Your task to perform on an android device: clear all cookies in the chrome app Image 0: 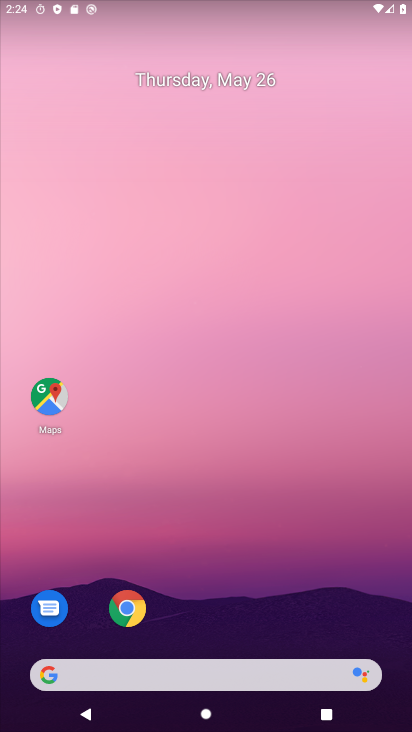
Step 0: drag from (272, 591) to (253, 236)
Your task to perform on an android device: clear all cookies in the chrome app Image 1: 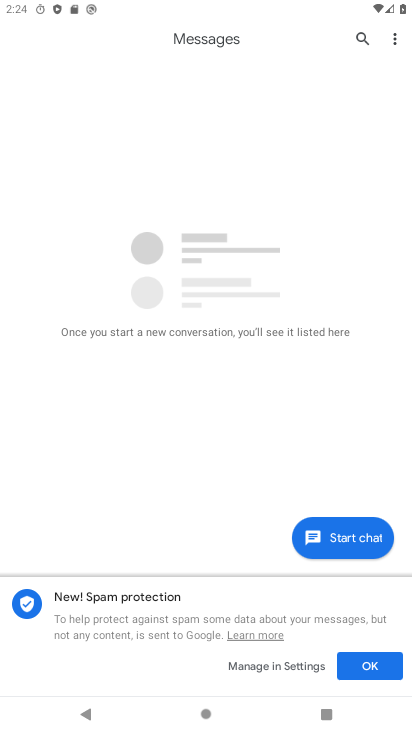
Step 1: press back button
Your task to perform on an android device: clear all cookies in the chrome app Image 2: 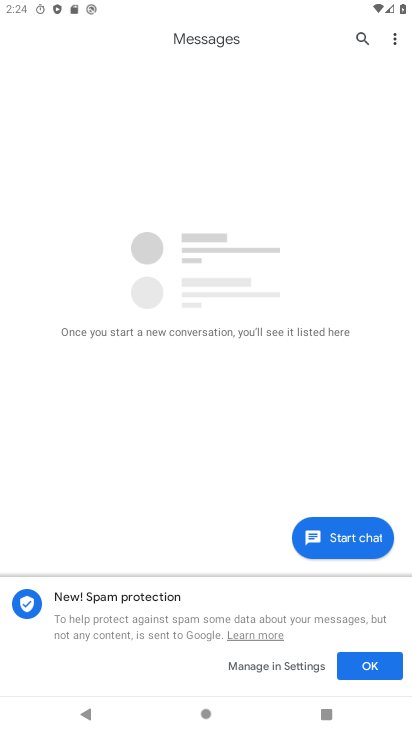
Step 2: press back button
Your task to perform on an android device: clear all cookies in the chrome app Image 3: 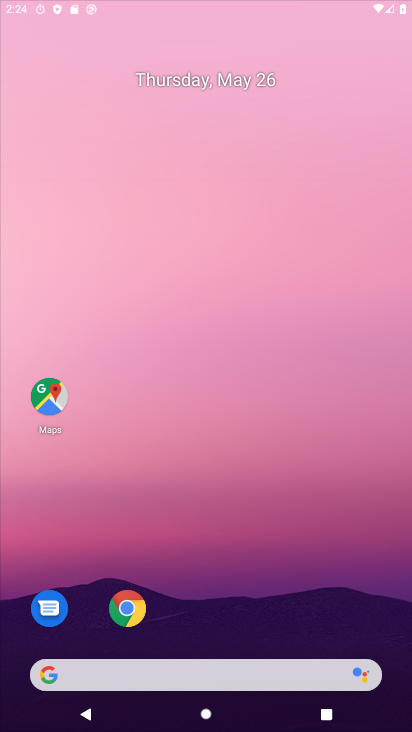
Step 3: press back button
Your task to perform on an android device: clear all cookies in the chrome app Image 4: 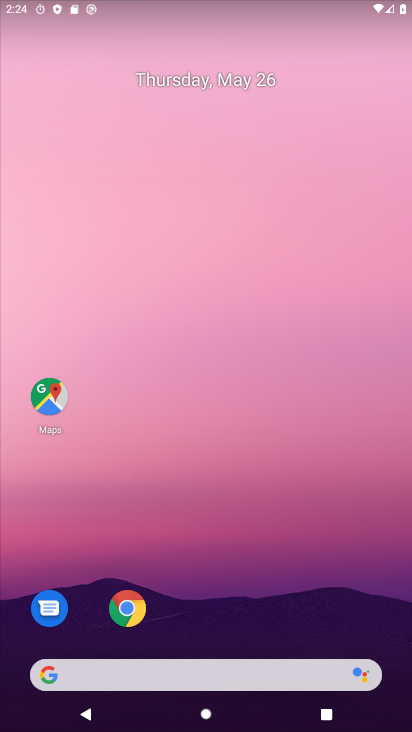
Step 4: drag from (248, 578) to (230, 51)
Your task to perform on an android device: clear all cookies in the chrome app Image 5: 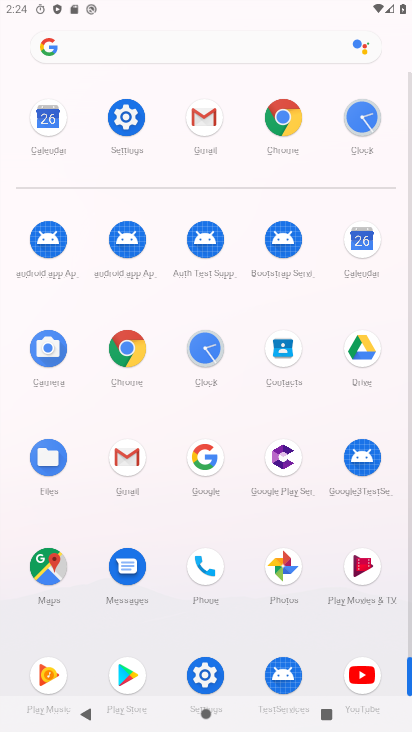
Step 5: click (287, 124)
Your task to perform on an android device: clear all cookies in the chrome app Image 6: 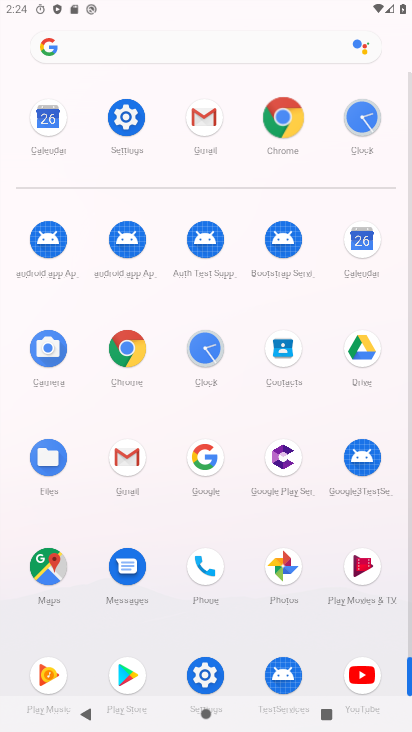
Step 6: click (287, 124)
Your task to perform on an android device: clear all cookies in the chrome app Image 7: 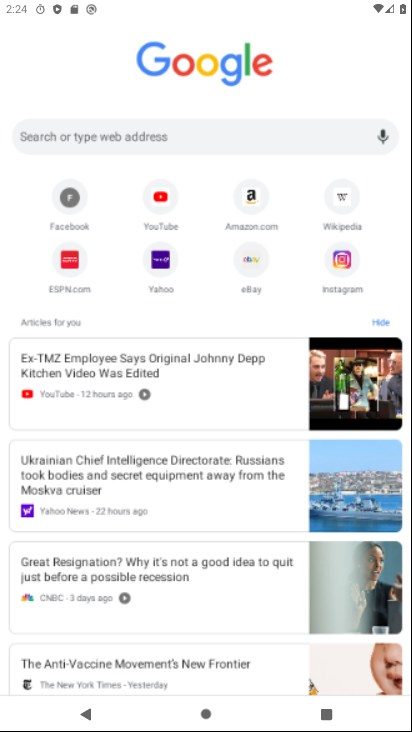
Step 7: click (288, 123)
Your task to perform on an android device: clear all cookies in the chrome app Image 8: 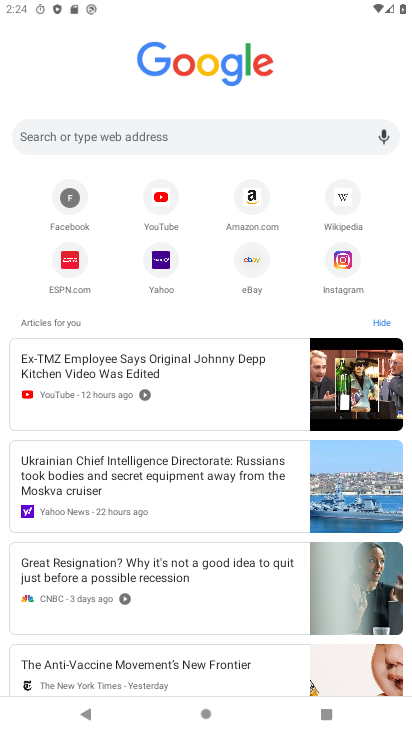
Step 8: drag from (313, 64) to (318, 457)
Your task to perform on an android device: clear all cookies in the chrome app Image 9: 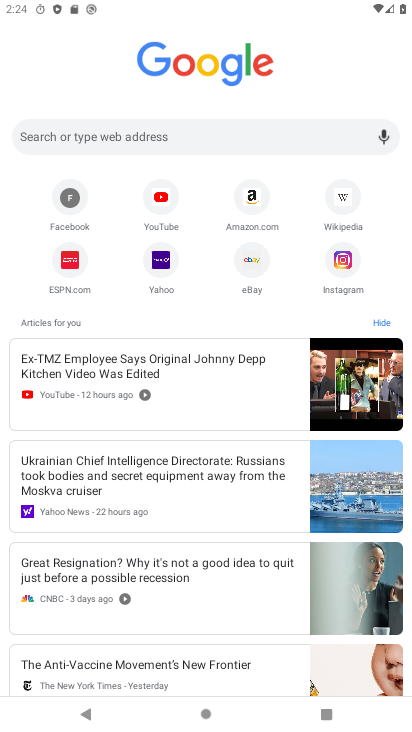
Step 9: press back button
Your task to perform on an android device: clear all cookies in the chrome app Image 10: 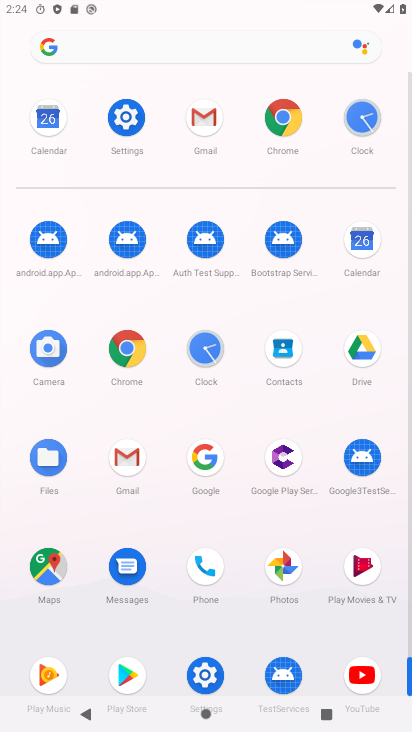
Step 10: press home button
Your task to perform on an android device: clear all cookies in the chrome app Image 11: 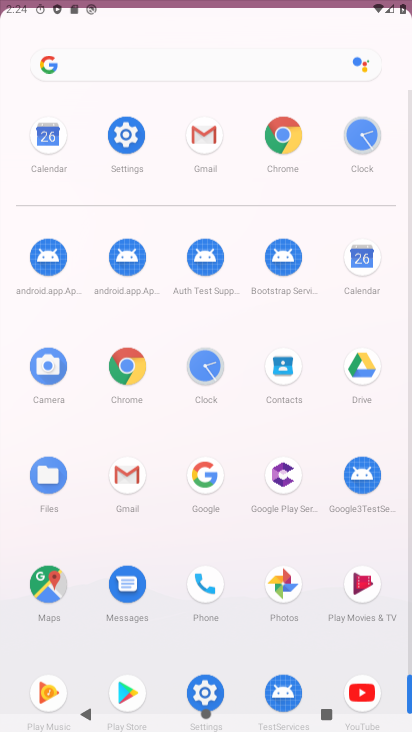
Step 11: press home button
Your task to perform on an android device: clear all cookies in the chrome app Image 12: 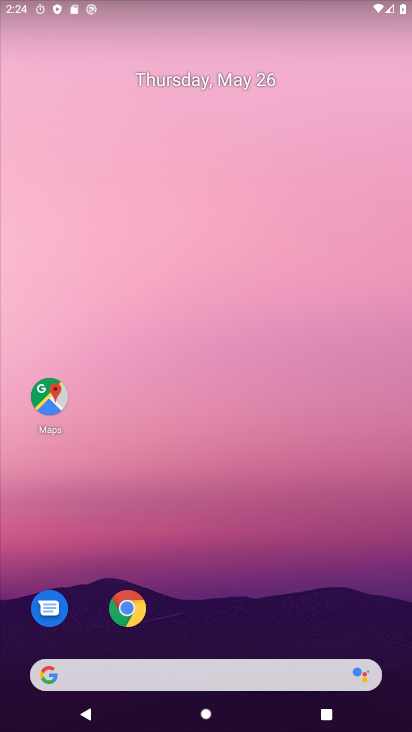
Step 12: press home button
Your task to perform on an android device: clear all cookies in the chrome app Image 13: 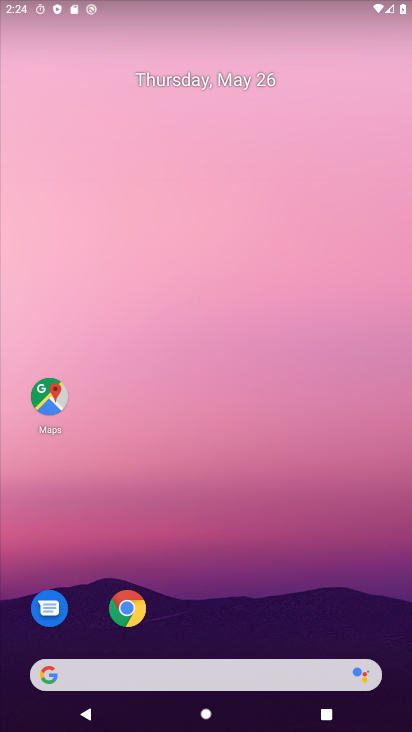
Step 13: drag from (272, 698) to (198, 339)
Your task to perform on an android device: clear all cookies in the chrome app Image 14: 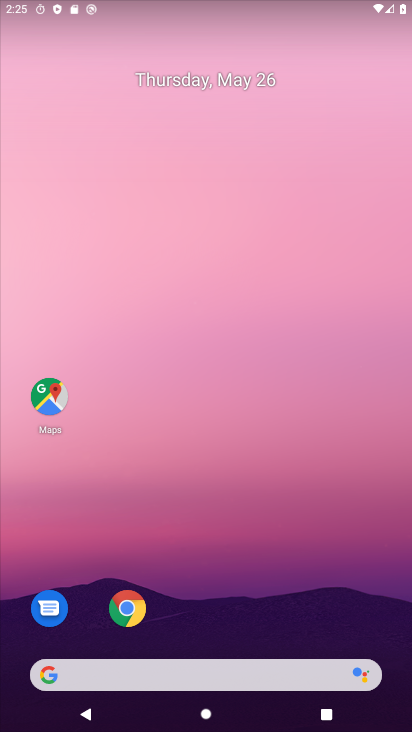
Step 14: drag from (209, 526) to (140, 94)
Your task to perform on an android device: clear all cookies in the chrome app Image 15: 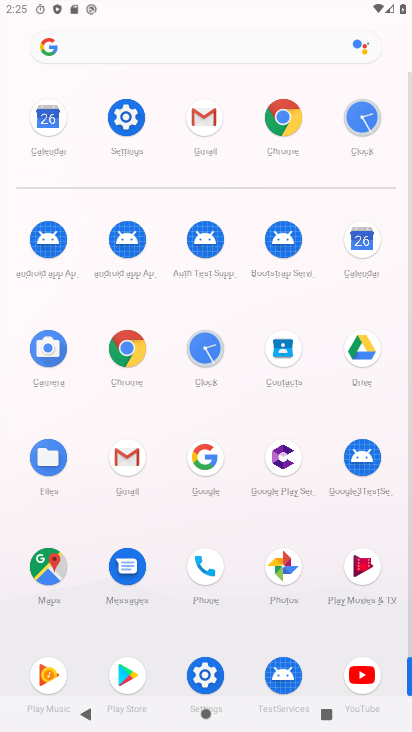
Step 15: click (284, 122)
Your task to perform on an android device: clear all cookies in the chrome app Image 16: 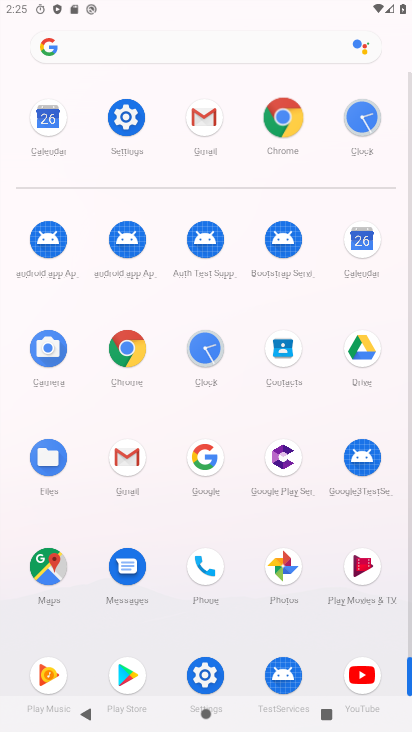
Step 16: click (284, 122)
Your task to perform on an android device: clear all cookies in the chrome app Image 17: 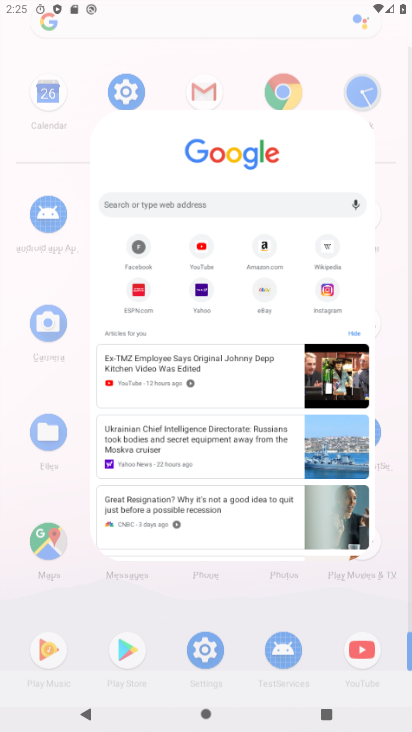
Step 17: click (284, 122)
Your task to perform on an android device: clear all cookies in the chrome app Image 18: 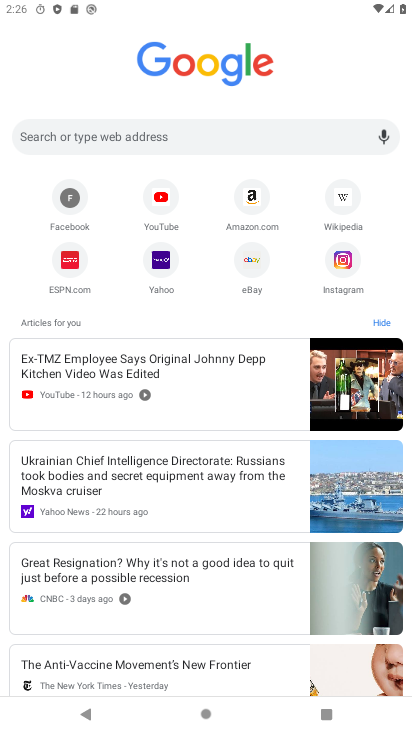
Step 18: press back button
Your task to perform on an android device: clear all cookies in the chrome app Image 19: 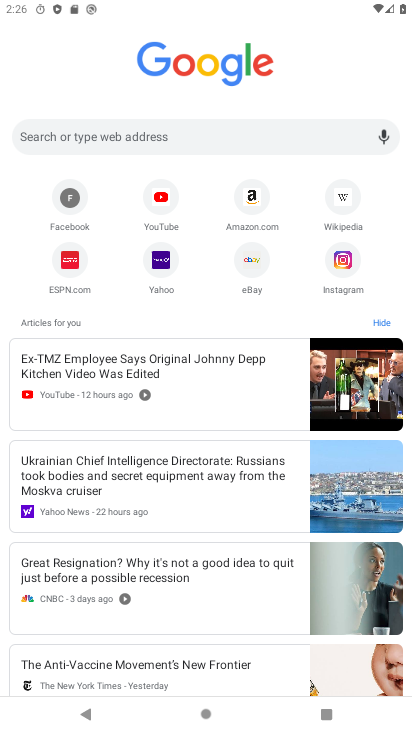
Step 19: press back button
Your task to perform on an android device: clear all cookies in the chrome app Image 20: 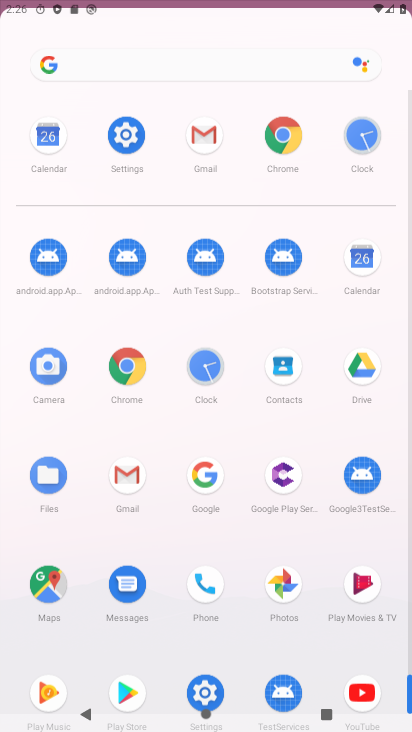
Step 20: press back button
Your task to perform on an android device: clear all cookies in the chrome app Image 21: 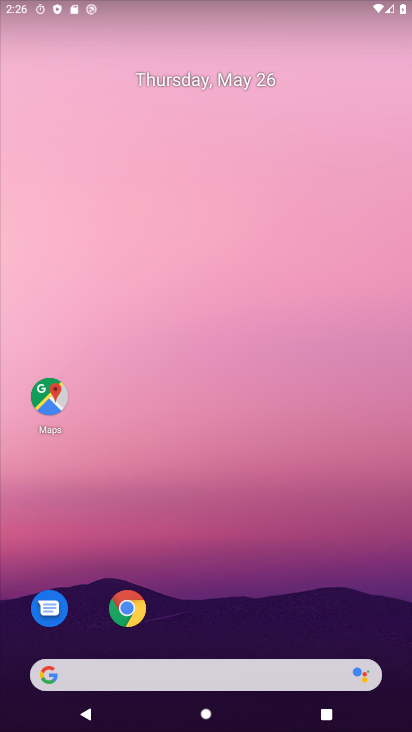
Step 21: drag from (274, 674) to (129, 89)
Your task to perform on an android device: clear all cookies in the chrome app Image 22: 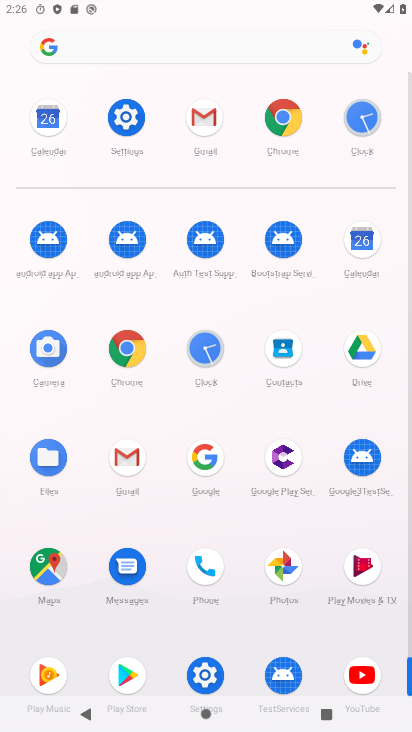
Step 22: click (280, 113)
Your task to perform on an android device: clear all cookies in the chrome app Image 23: 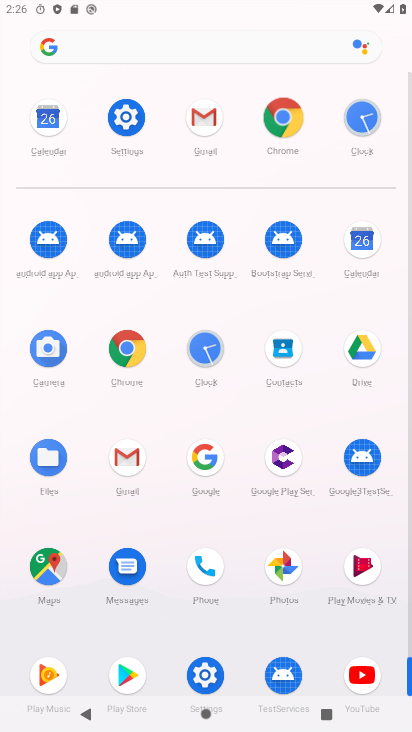
Step 23: click (281, 113)
Your task to perform on an android device: clear all cookies in the chrome app Image 24: 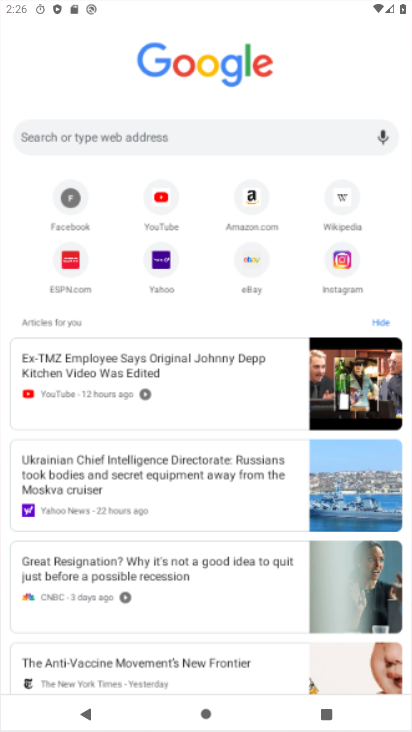
Step 24: click (281, 113)
Your task to perform on an android device: clear all cookies in the chrome app Image 25: 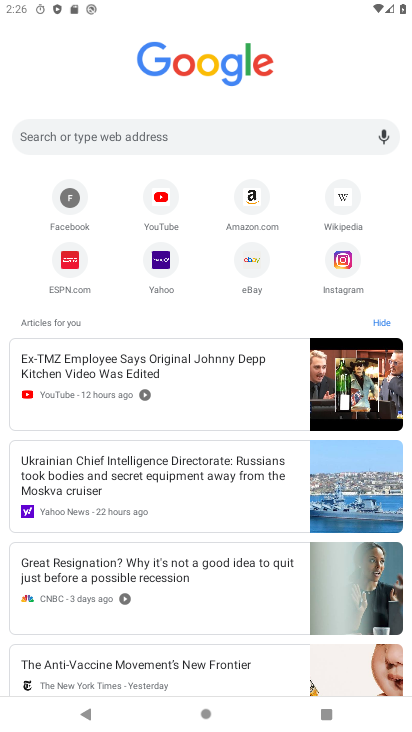
Step 25: drag from (264, 190) to (214, 555)
Your task to perform on an android device: clear all cookies in the chrome app Image 26: 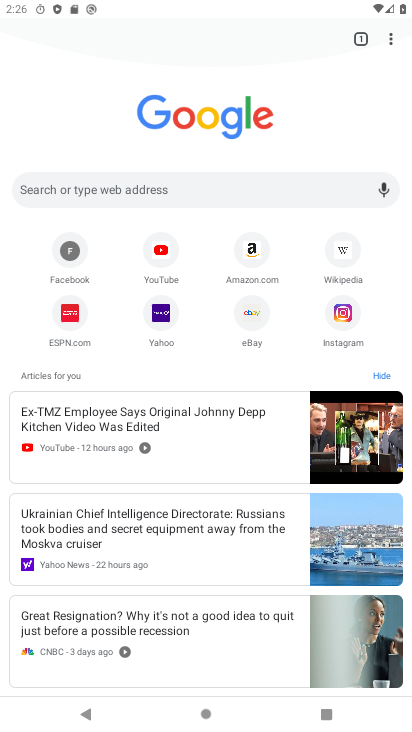
Step 26: drag from (133, 178) to (133, 611)
Your task to perform on an android device: clear all cookies in the chrome app Image 27: 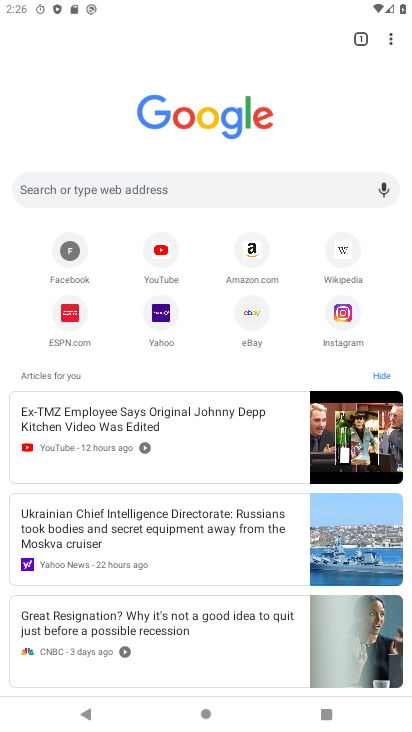
Step 27: drag from (384, 44) to (243, 360)
Your task to perform on an android device: clear all cookies in the chrome app Image 28: 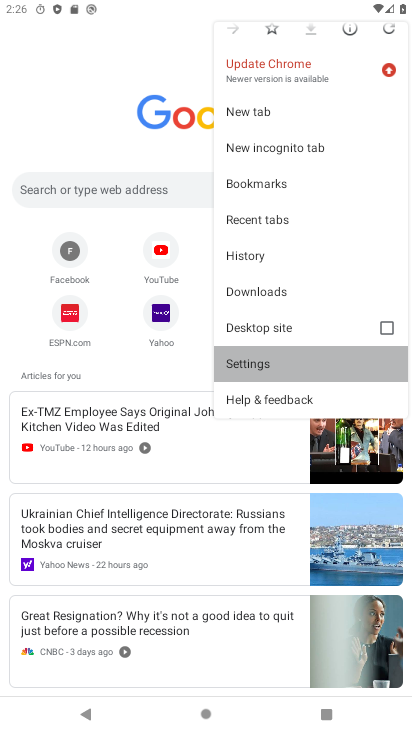
Step 28: click (243, 360)
Your task to perform on an android device: clear all cookies in the chrome app Image 29: 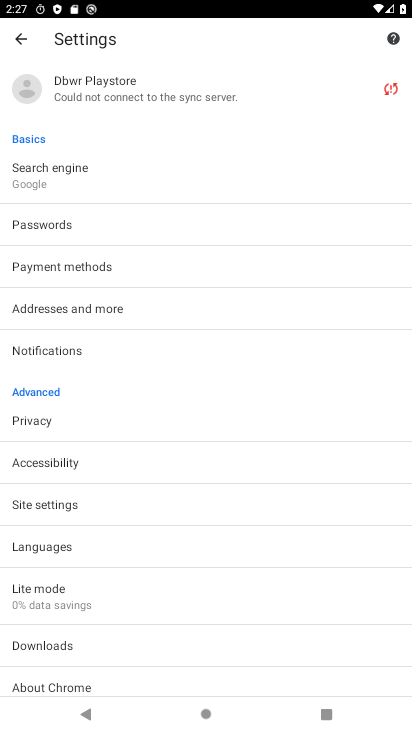
Step 29: drag from (54, 575) to (80, 260)
Your task to perform on an android device: clear all cookies in the chrome app Image 30: 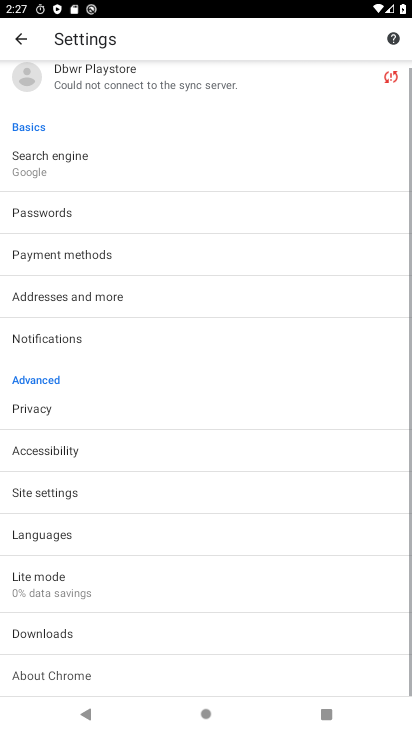
Step 30: drag from (62, 525) to (74, 220)
Your task to perform on an android device: clear all cookies in the chrome app Image 31: 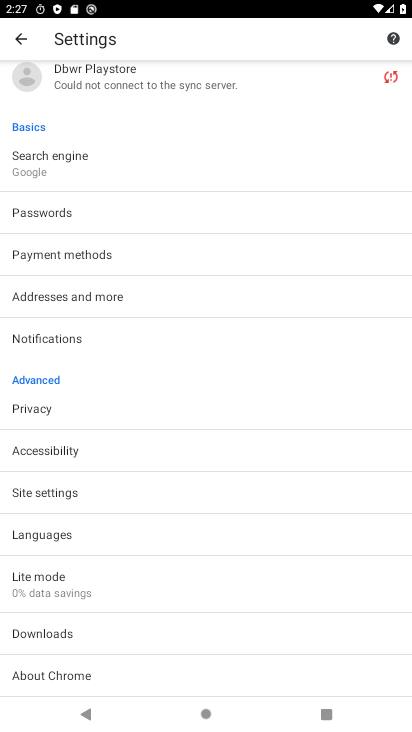
Step 31: click (41, 488)
Your task to perform on an android device: clear all cookies in the chrome app Image 32: 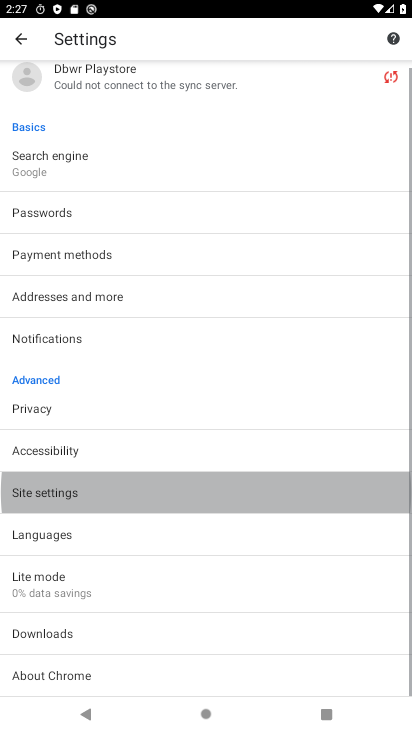
Step 32: click (42, 488)
Your task to perform on an android device: clear all cookies in the chrome app Image 33: 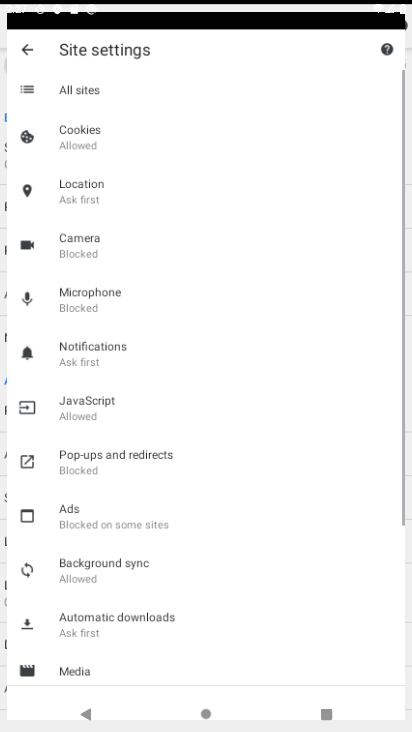
Step 33: click (46, 494)
Your task to perform on an android device: clear all cookies in the chrome app Image 34: 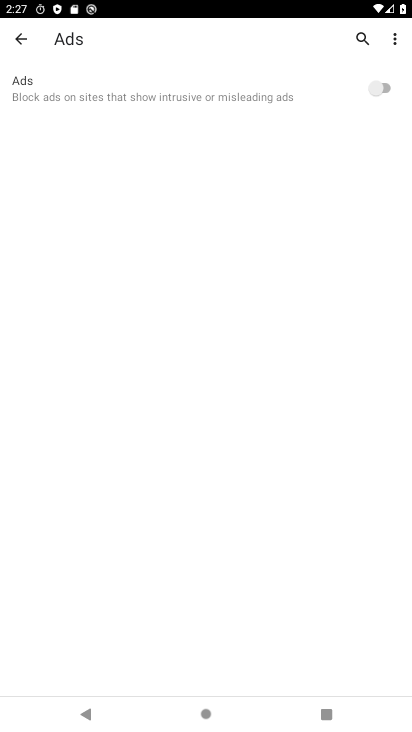
Step 34: click (16, 35)
Your task to perform on an android device: clear all cookies in the chrome app Image 35: 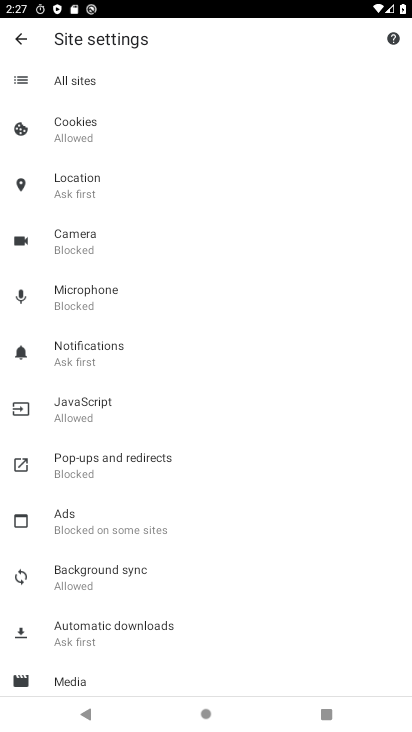
Step 35: click (76, 123)
Your task to perform on an android device: clear all cookies in the chrome app Image 36: 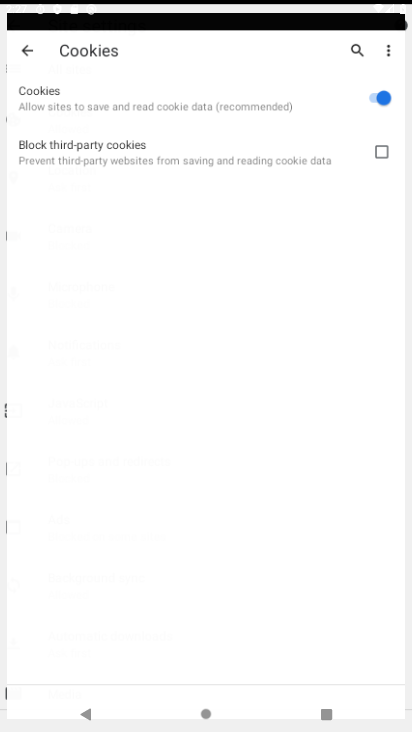
Step 36: click (76, 123)
Your task to perform on an android device: clear all cookies in the chrome app Image 37: 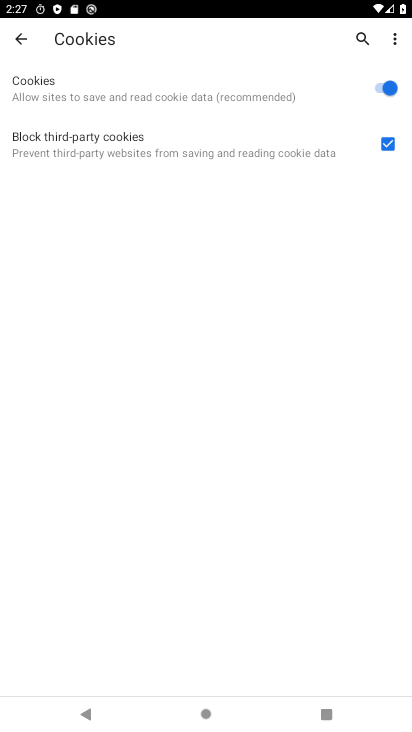
Step 37: task complete